Your task to perform on an android device: search for starred emails in the gmail app Image 0: 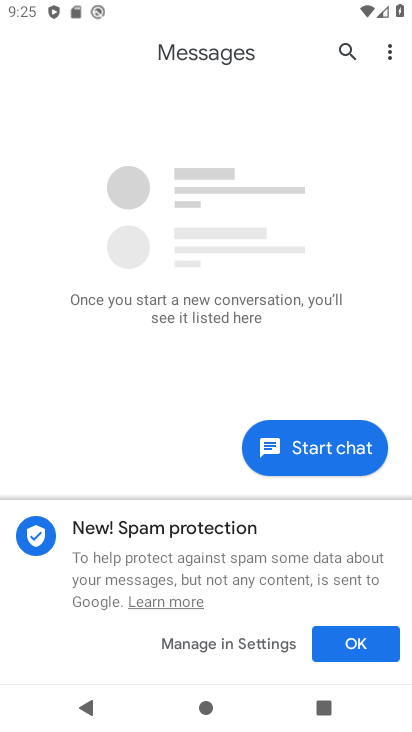
Step 0: press home button
Your task to perform on an android device: search for starred emails in the gmail app Image 1: 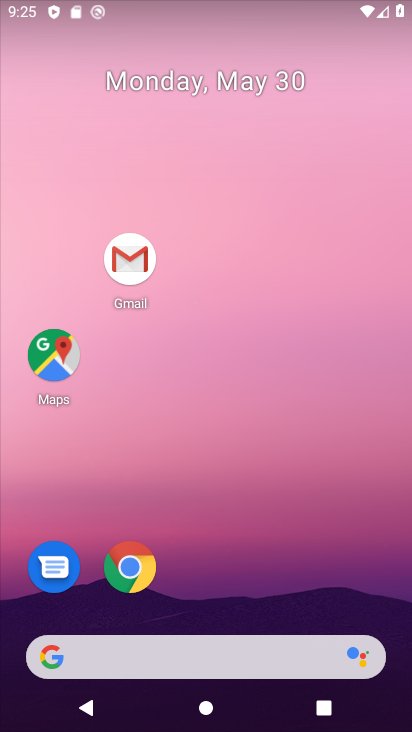
Step 1: click (131, 259)
Your task to perform on an android device: search for starred emails in the gmail app Image 2: 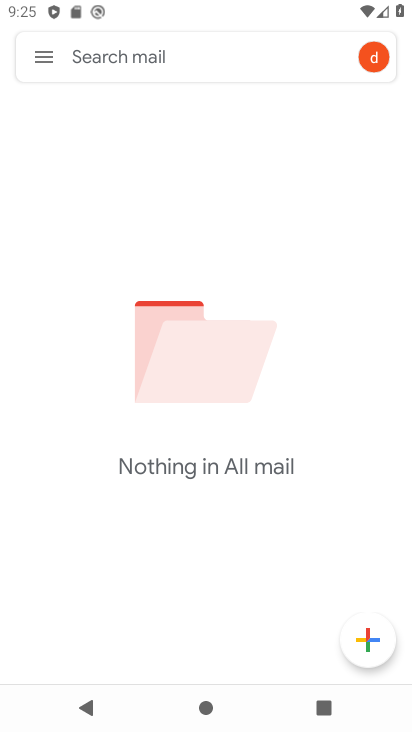
Step 2: click (31, 64)
Your task to perform on an android device: search for starred emails in the gmail app Image 3: 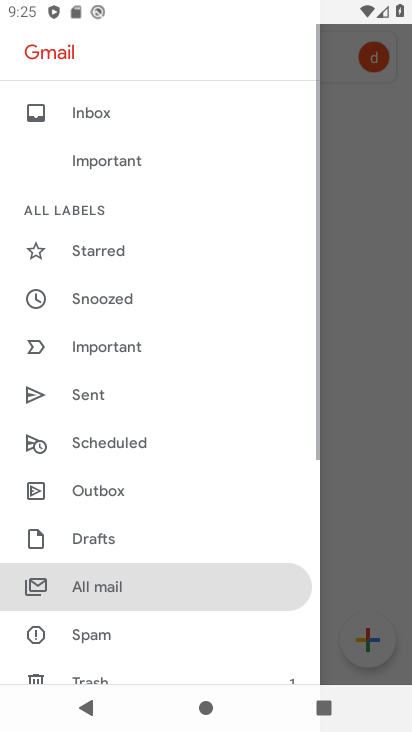
Step 3: drag from (178, 196) to (131, 511)
Your task to perform on an android device: search for starred emails in the gmail app Image 4: 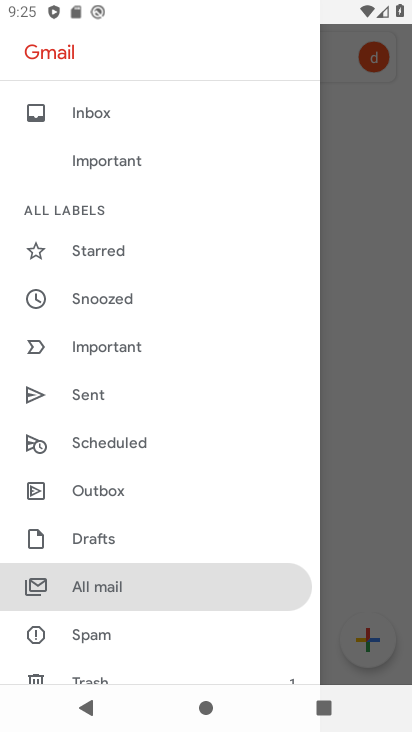
Step 4: click (150, 247)
Your task to perform on an android device: search for starred emails in the gmail app Image 5: 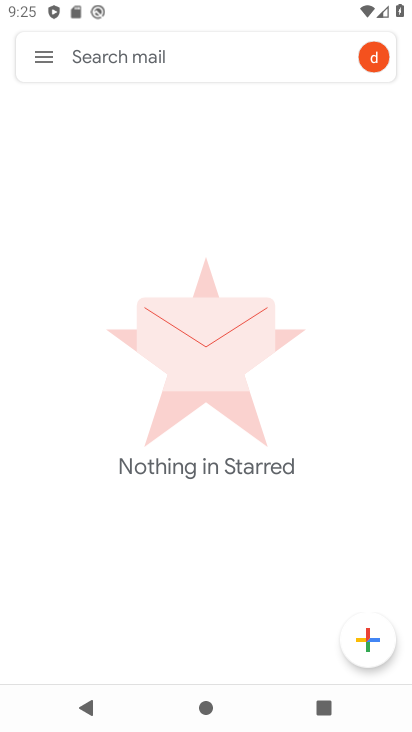
Step 5: task complete